Your task to perform on an android device: all mails in gmail Image 0: 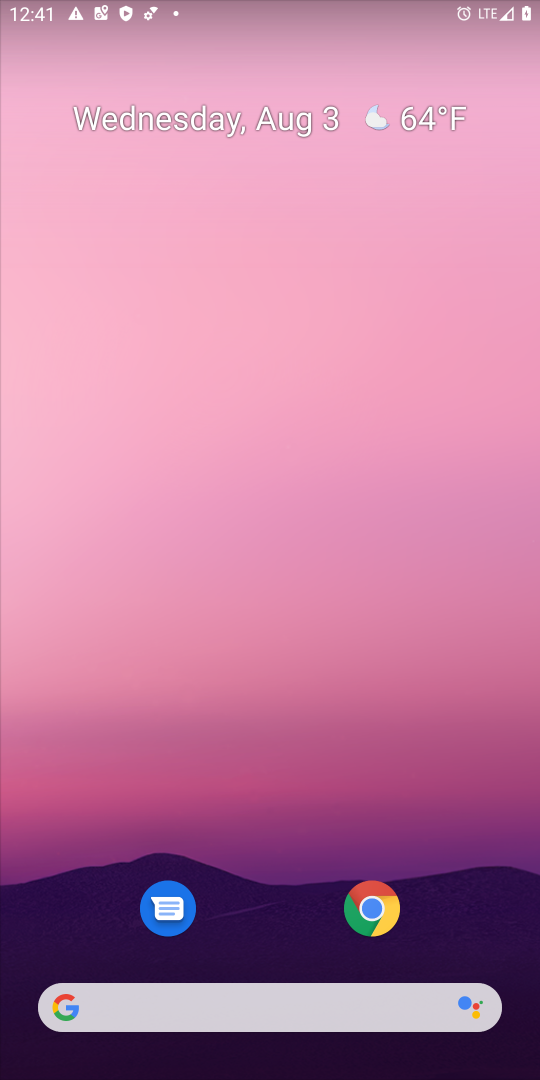
Step 0: drag from (234, 853) to (259, 49)
Your task to perform on an android device: all mails in gmail Image 1: 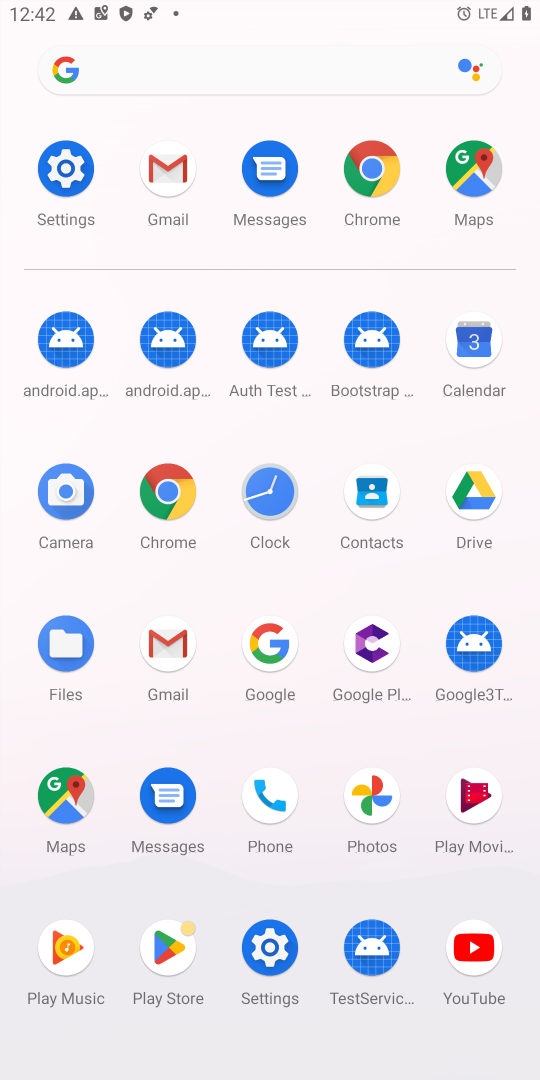
Step 1: click (177, 653)
Your task to perform on an android device: all mails in gmail Image 2: 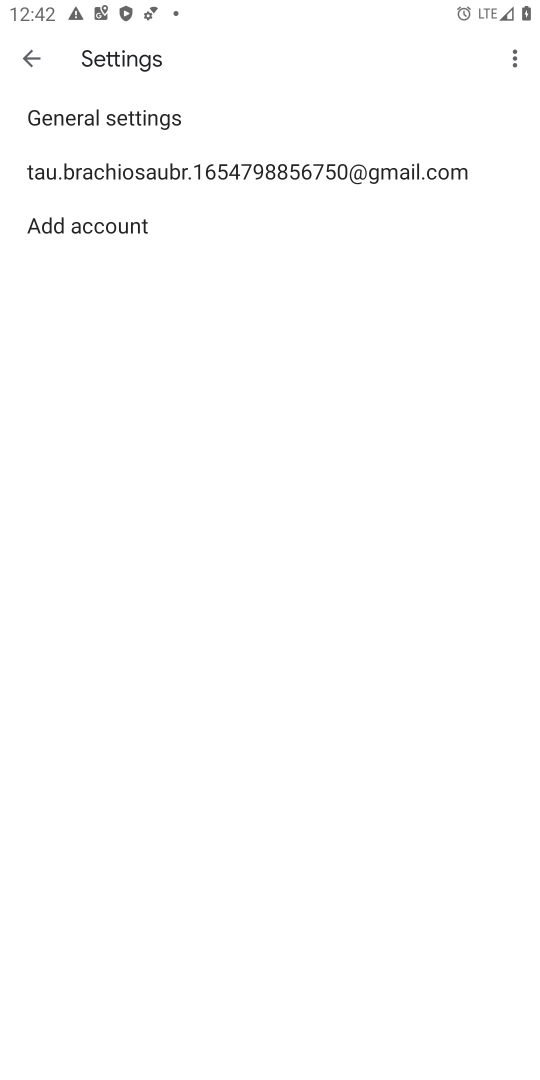
Step 2: press back button
Your task to perform on an android device: all mails in gmail Image 3: 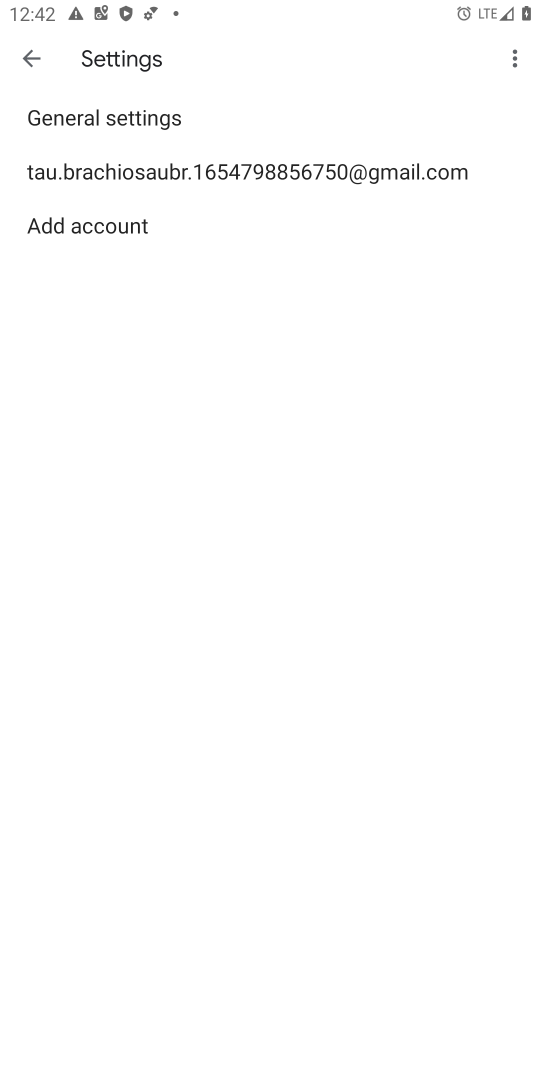
Step 3: press back button
Your task to perform on an android device: all mails in gmail Image 4: 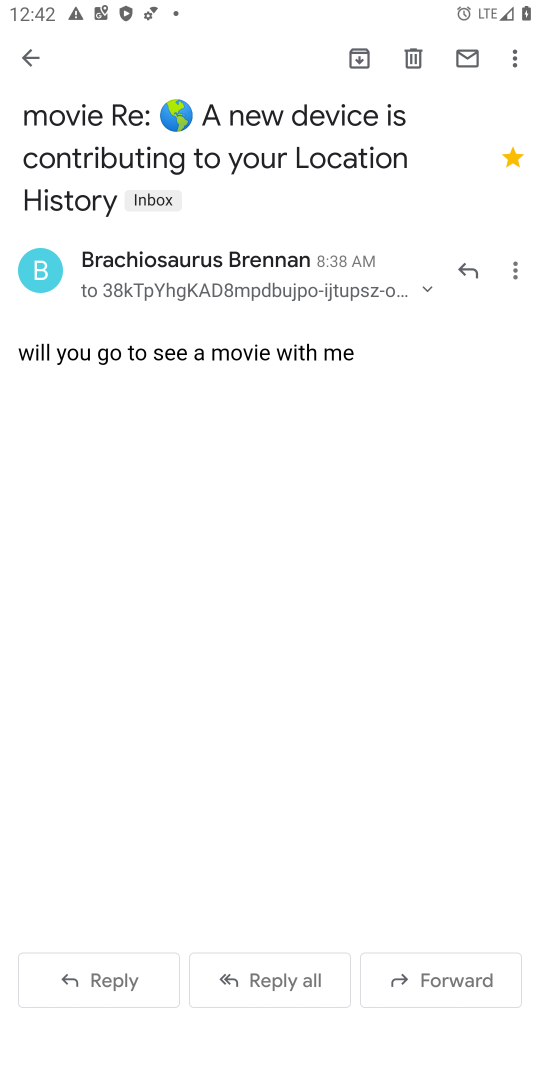
Step 4: click (348, 341)
Your task to perform on an android device: all mails in gmail Image 5: 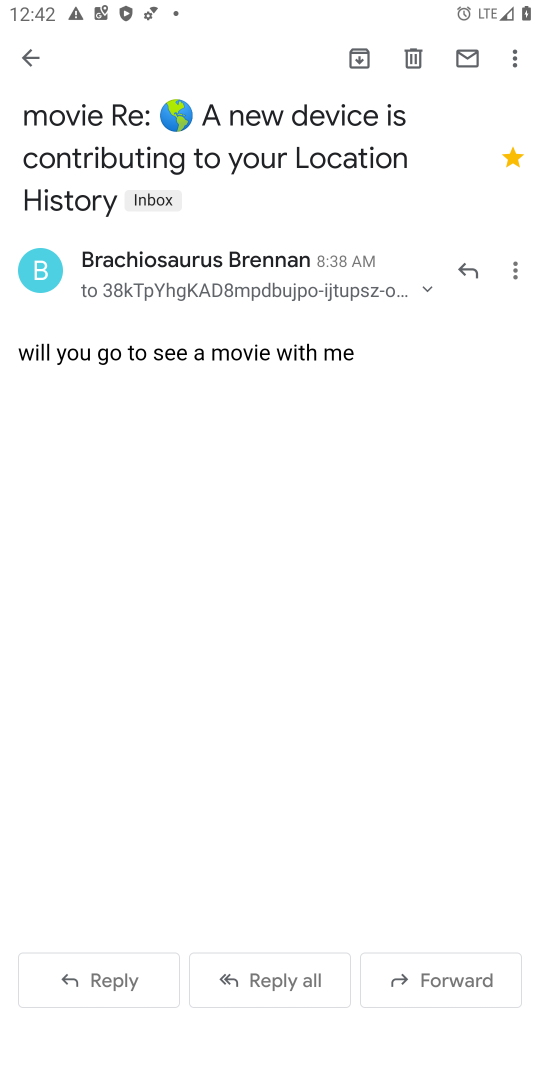
Step 5: press back button
Your task to perform on an android device: all mails in gmail Image 6: 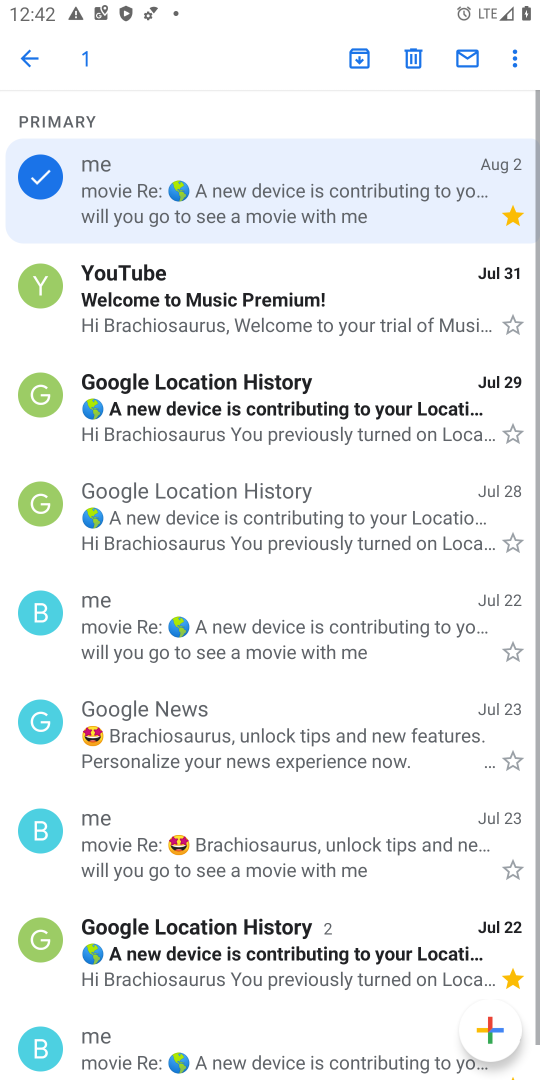
Step 6: click (14, 61)
Your task to perform on an android device: all mails in gmail Image 7: 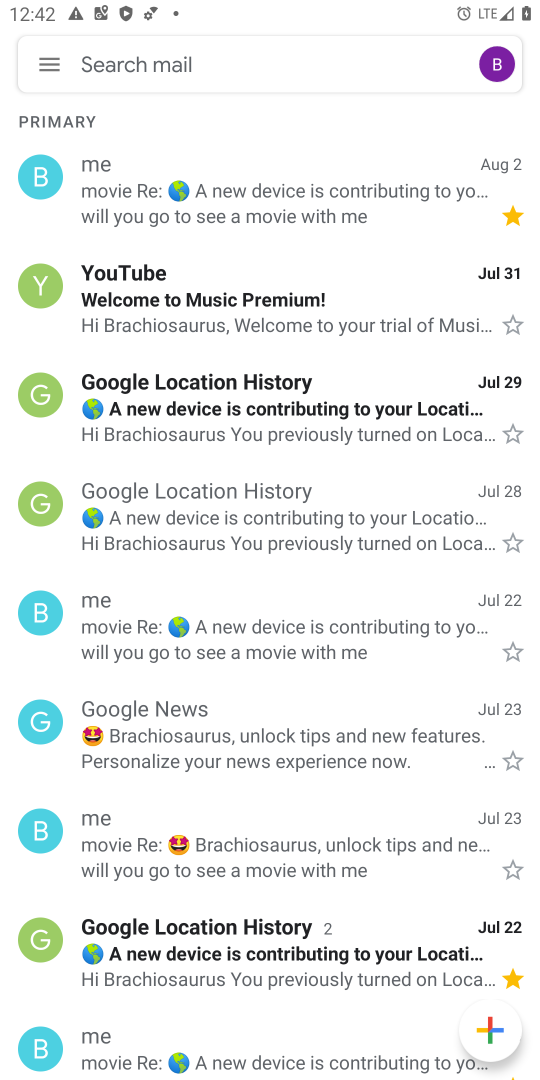
Step 7: click (53, 77)
Your task to perform on an android device: all mails in gmail Image 8: 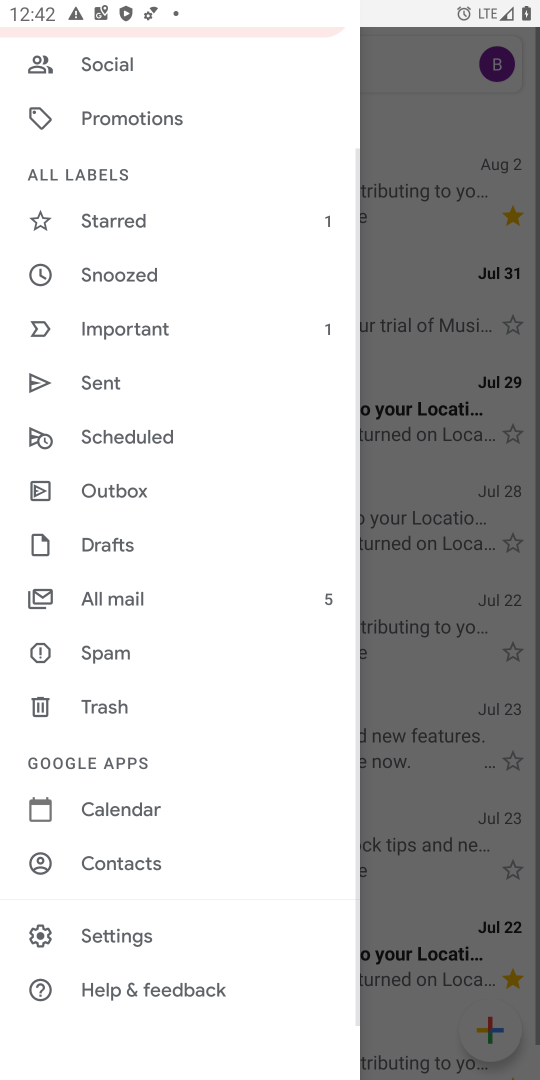
Step 8: click (181, 592)
Your task to perform on an android device: all mails in gmail Image 9: 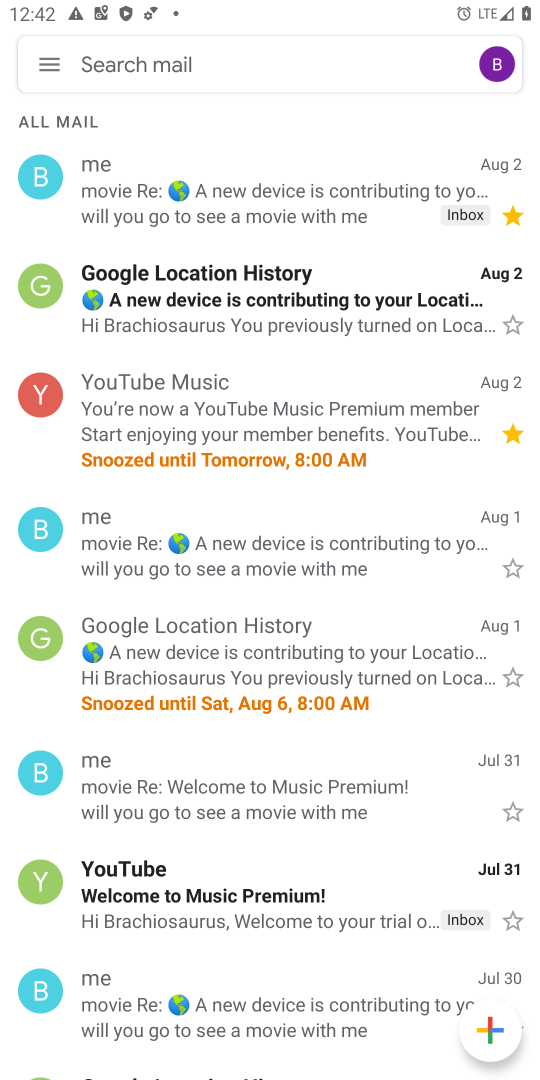
Step 9: task complete